Your task to perform on an android device: How much does a 2 bedroom apartment rent for in Houston? Image 0: 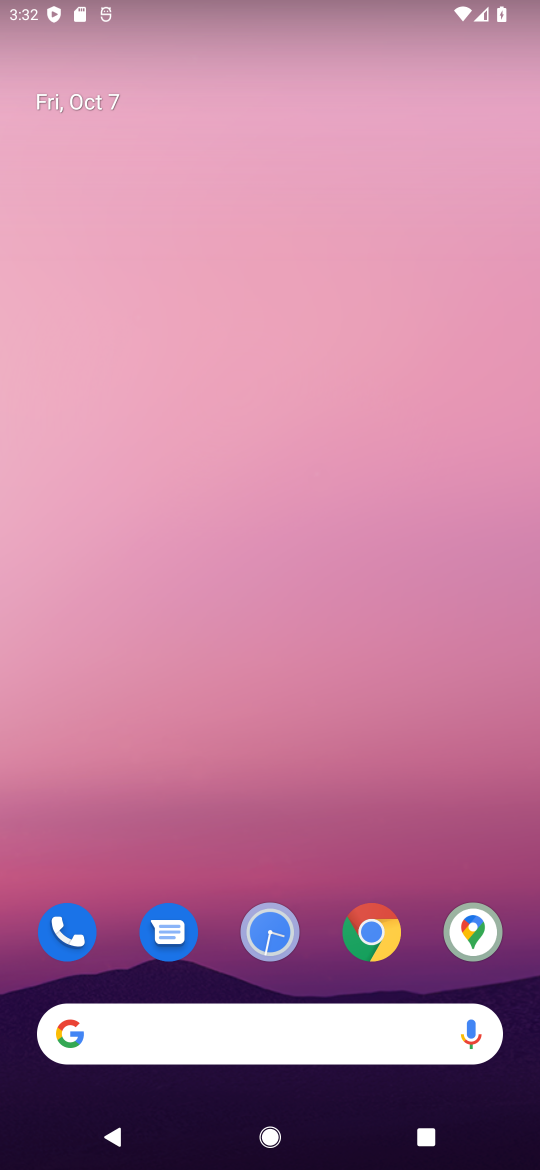
Step 0: drag from (235, 984) to (277, 142)
Your task to perform on an android device: How much does a 2 bedroom apartment rent for in Houston? Image 1: 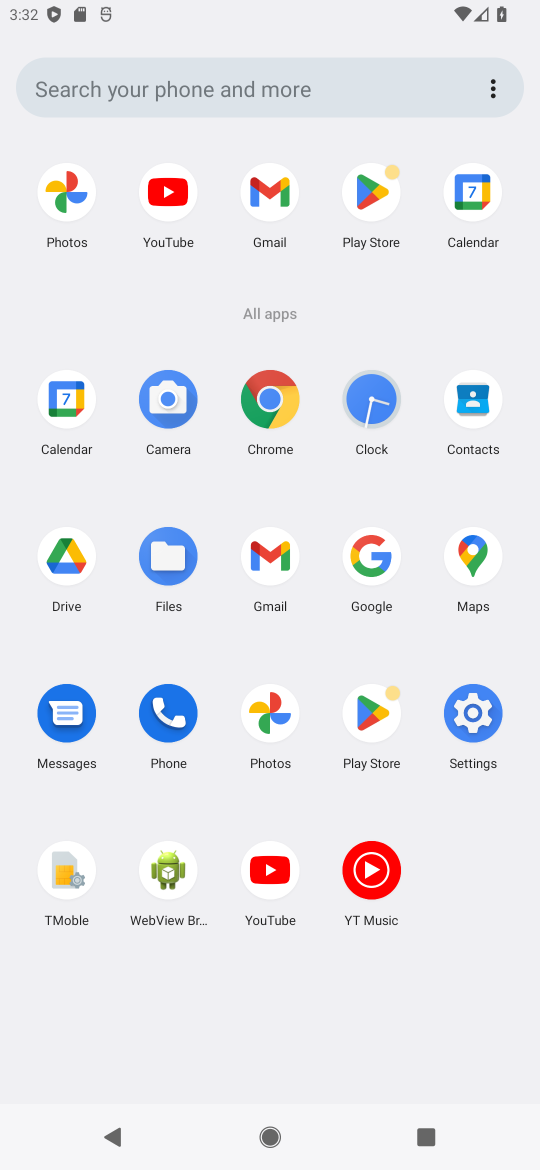
Step 1: click (272, 410)
Your task to perform on an android device: How much does a 2 bedroom apartment rent for in Houston? Image 2: 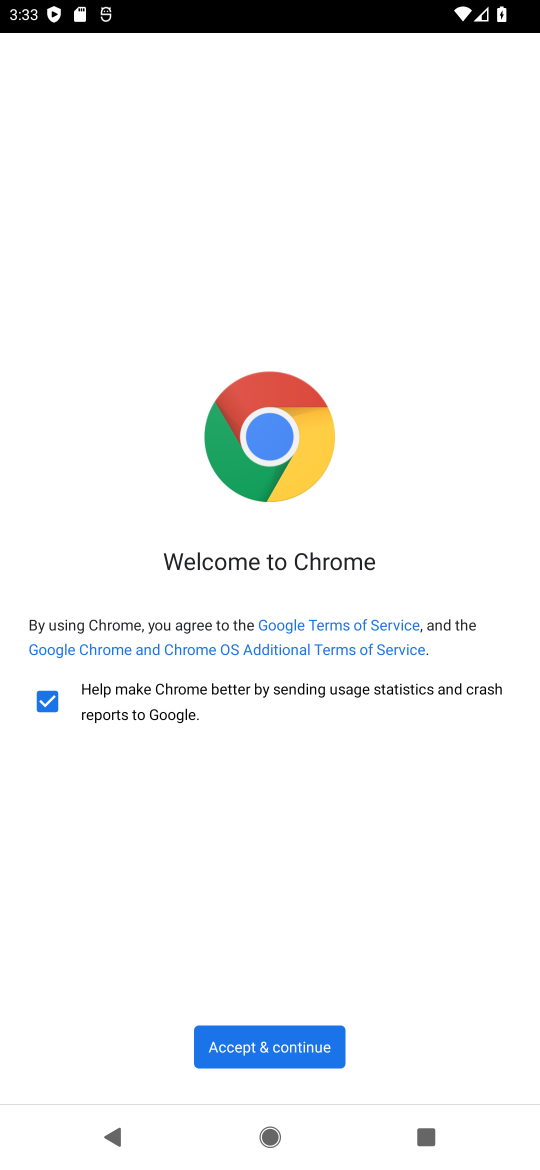
Step 2: click (298, 1028)
Your task to perform on an android device: How much does a 2 bedroom apartment rent for in Houston? Image 3: 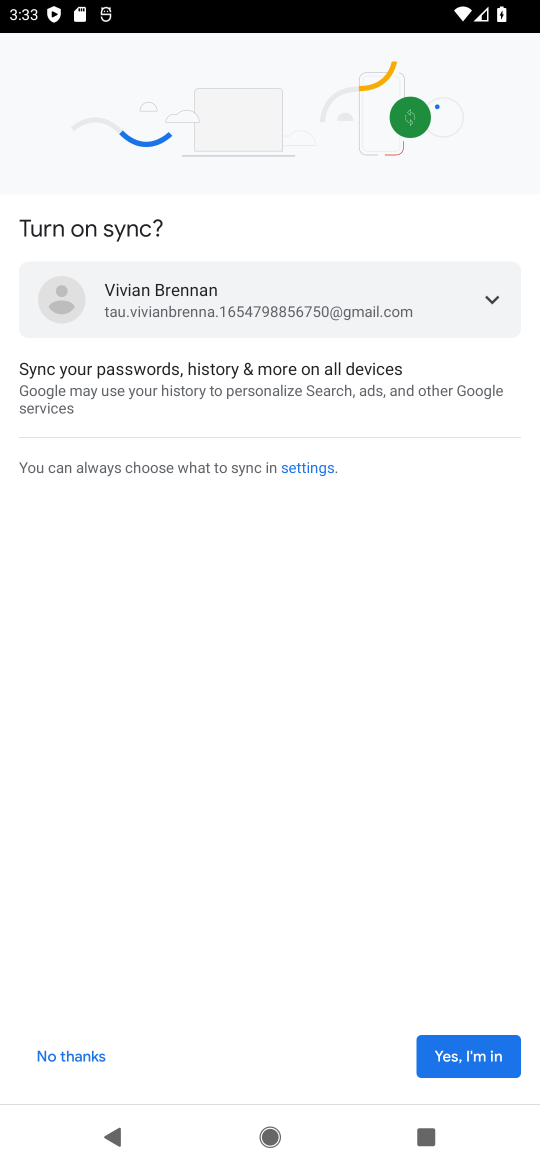
Step 3: click (444, 1070)
Your task to perform on an android device: How much does a 2 bedroom apartment rent for in Houston? Image 4: 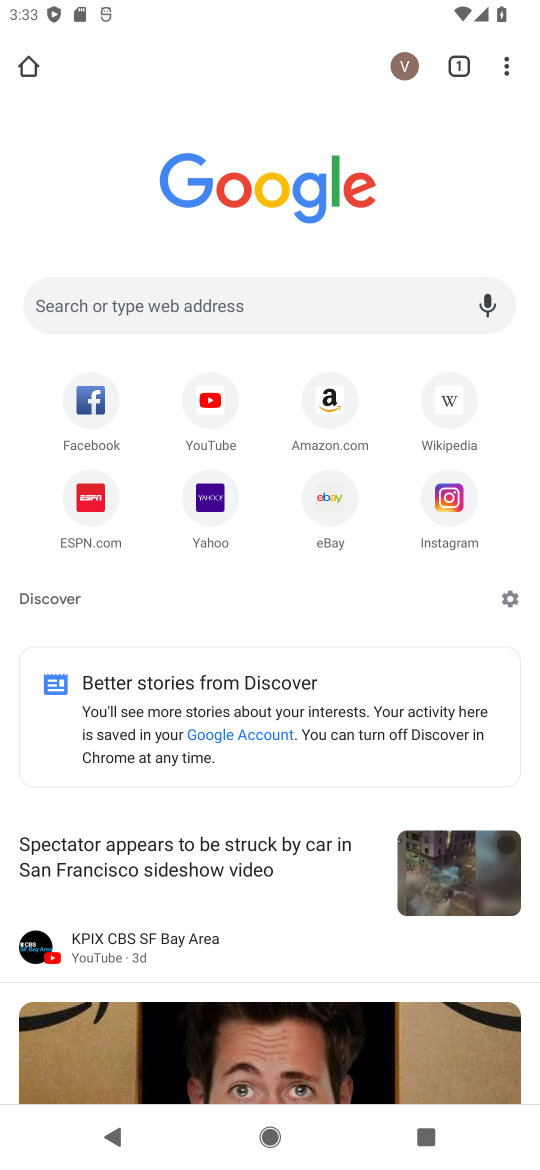
Step 4: click (286, 298)
Your task to perform on an android device: How much does a 2 bedroom apartment rent for in Houston? Image 5: 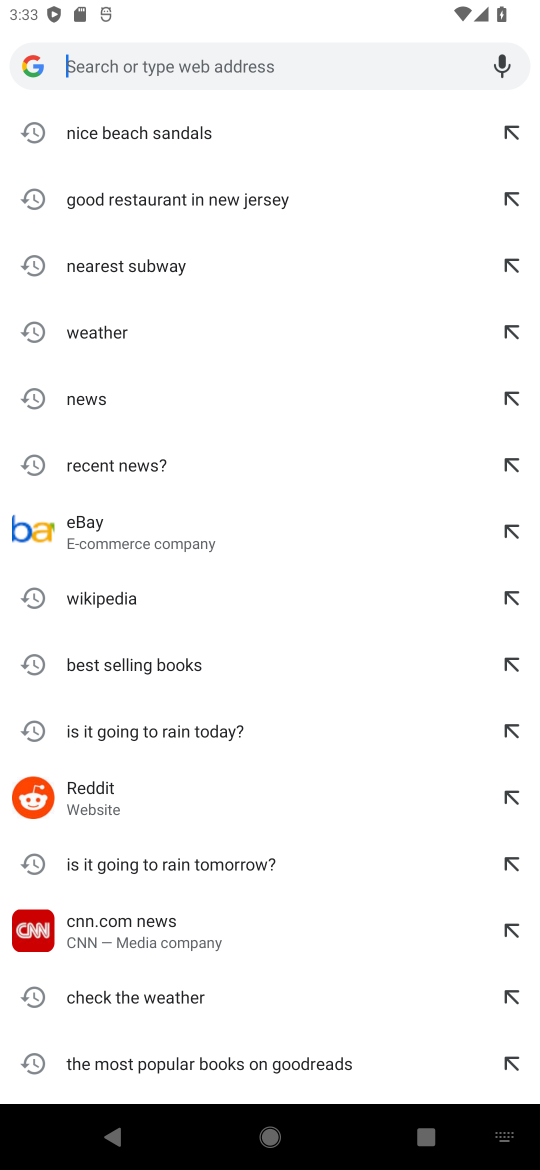
Step 5: type "2 bedroom apartment rent for in Houston"
Your task to perform on an android device: How much does a 2 bedroom apartment rent for in Houston? Image 6: 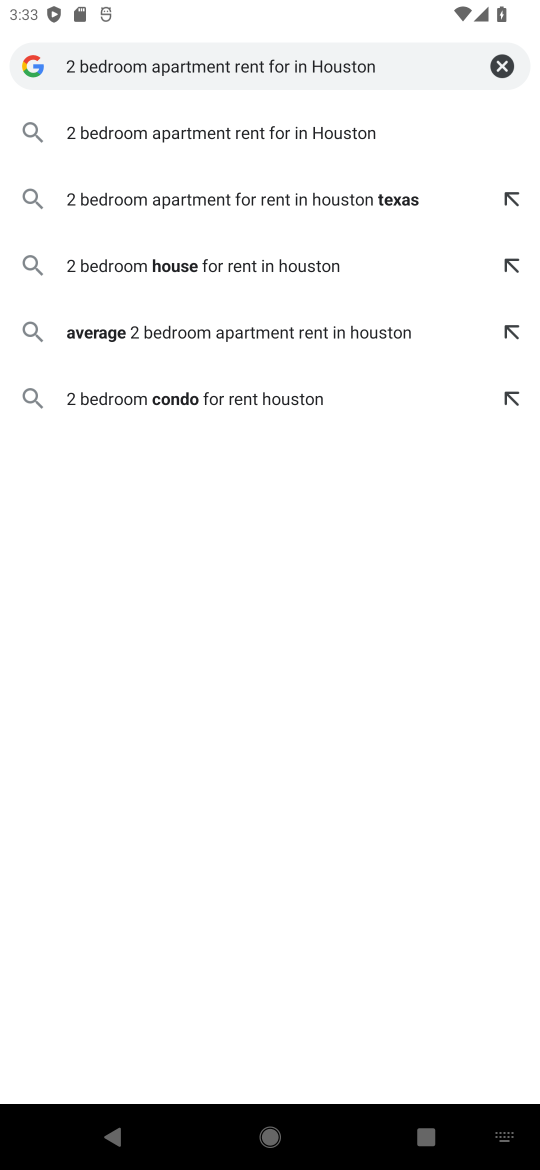
Step 6: click (327, 124)
Your task to perform on an android device: How much does a 2 bedroom apartment rent for in Houston? Image 7: 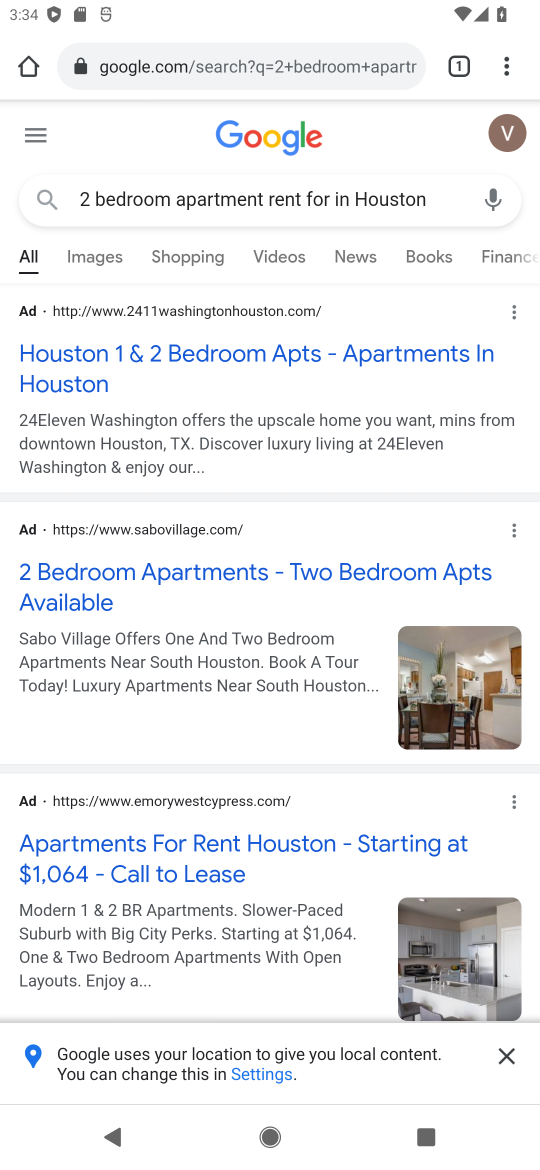
Step 7: task complete